Your task to perform on an android device: turn on data saver in the chrome app Image 0: 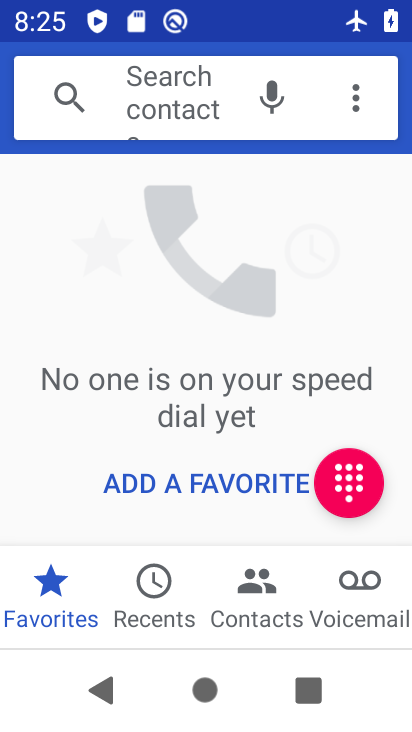
Step 0: press back button
Your task to perform on an android device: turn on data saver in the chrome app Image 1: 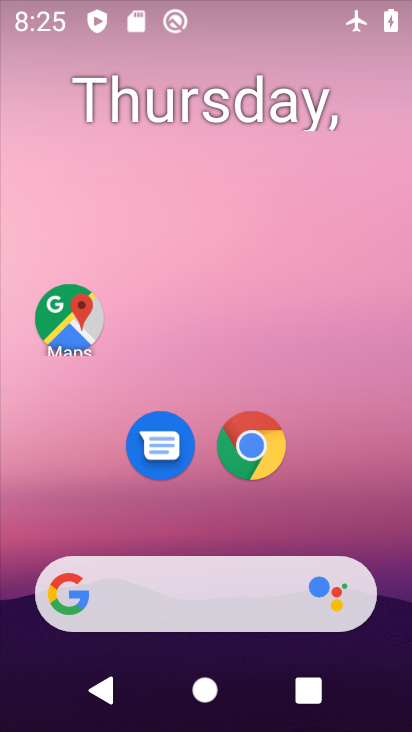
Step 1: drag from (276, 509) to (300, 70)
Your task to perform on an android device: turn on data saver in the chrome app Image 2: 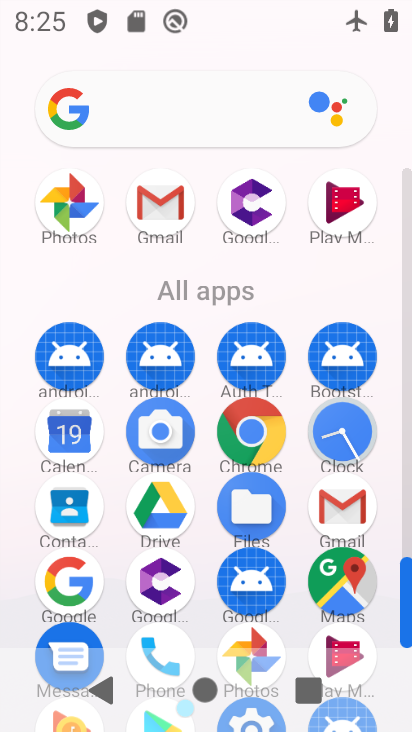
Step 2: click (268, 419)
Your task to perform on an android device: turn on data saver in the chrome app Image 3: 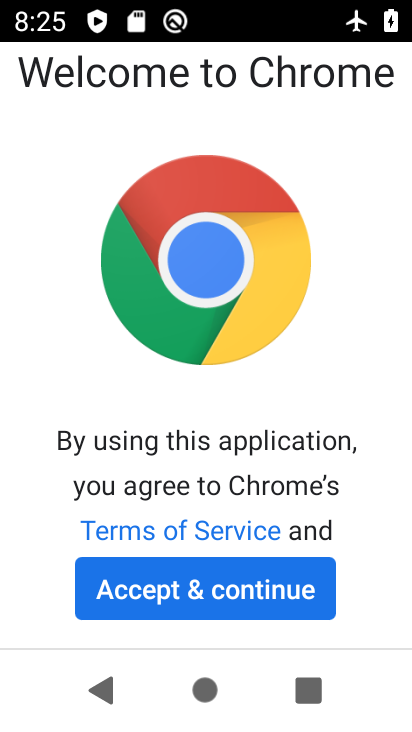
Step 3: click (263, 556)
Your task to perform on an android device: turn on data saver in the chrome app Image 4: 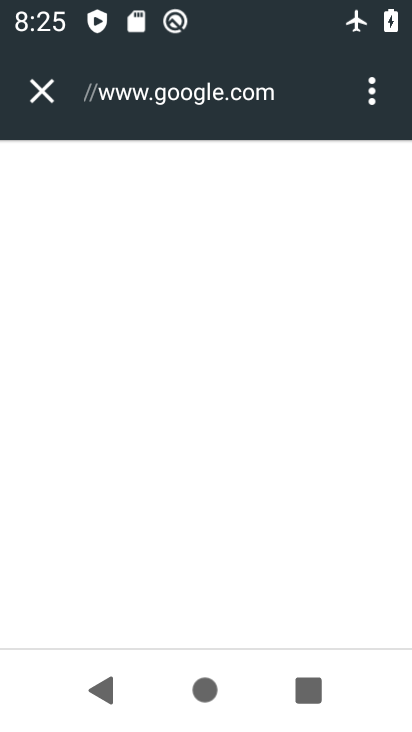
Step 4: click (43, 86)
Your task to perform on an android device: turn on data saver in the chrome app Image 5: 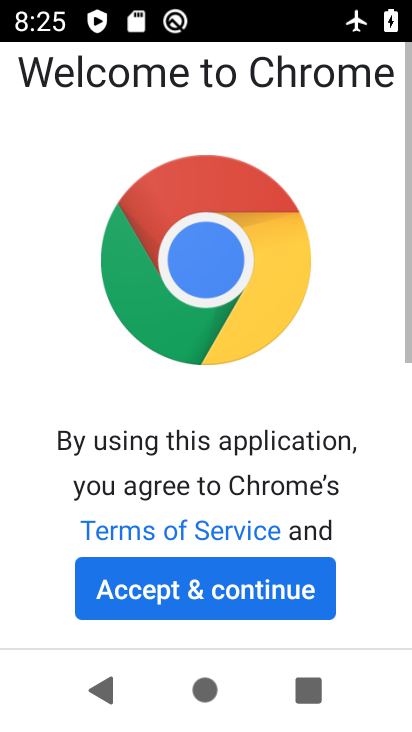
Step 5: click (234, 583)
Your task to perform on an android device: turn on data saver in the chrome app Image 6: 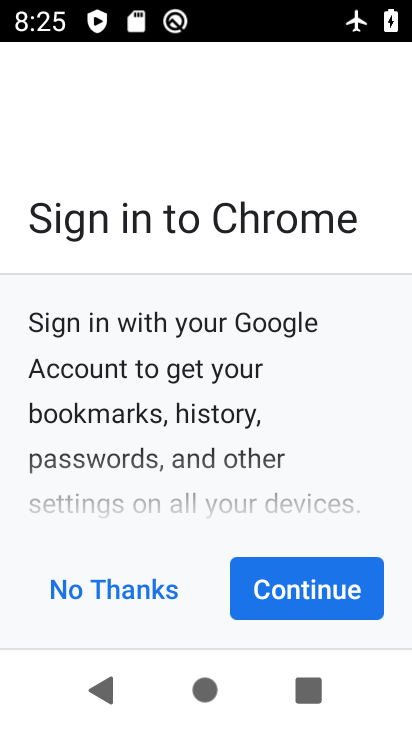
Step 6: click (302, 577)
Your task to perform on an android device: turn on data saver in the chrome app Image 7: 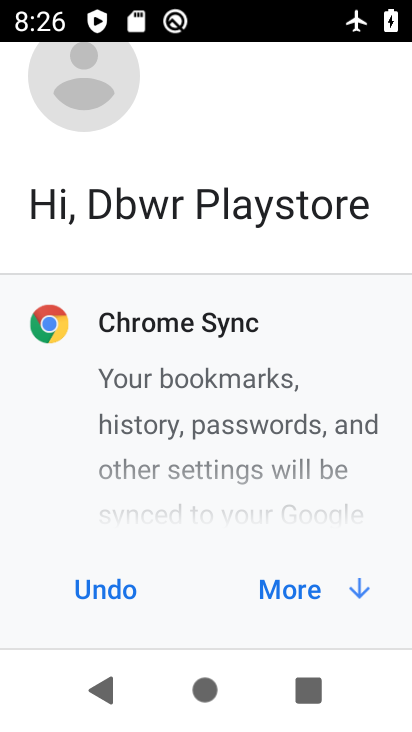
Step 7: click (278, 591)
Your task to perform on an android device: turn on data saver in the chrome app Image 8: 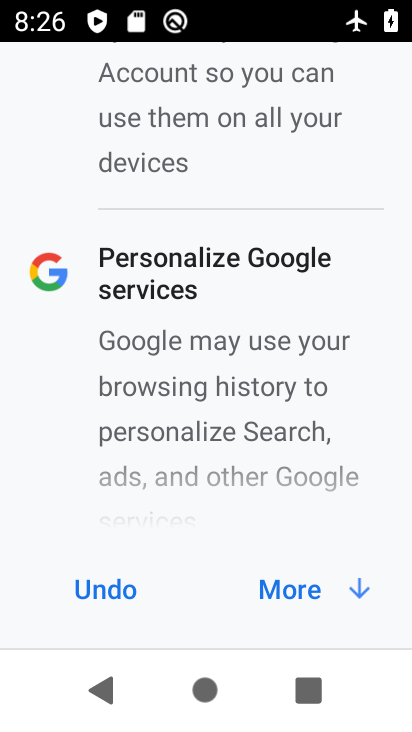
Step 8: click (278, 591)
Your task to perform on an android device: turn on data saver in the chrome app Image 9: 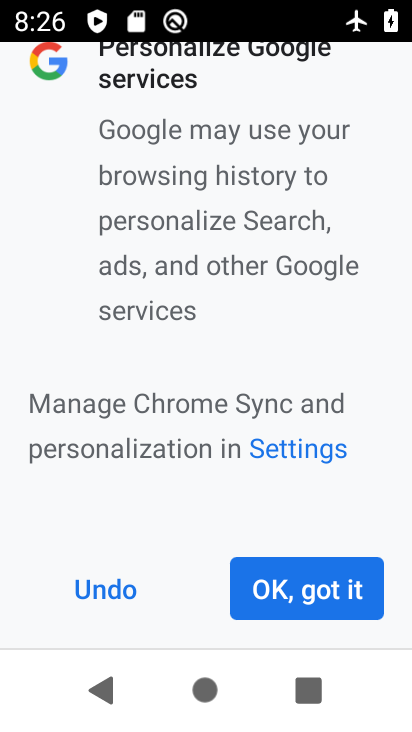
Step 9: click (278, 591)
Your task to perform on an android device: turn on data saver in the chrome app Image 10: 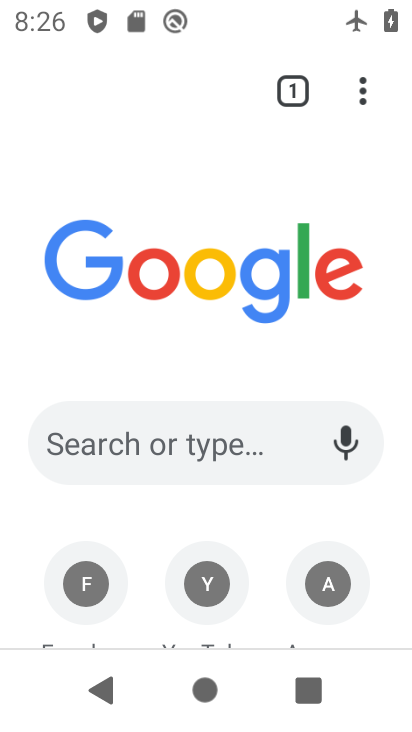
Step 10: drag from (366, 82) to (112, 477)
Your task to perform on an android device: turn on data saver in the chrome app Image 11: 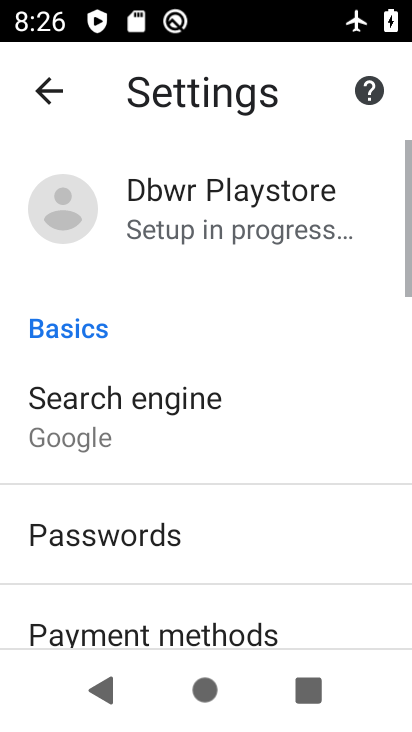
Step 11: drag from (142, 643) to (222, 90)
Your task to perform on an android device: turn on data saver in the chrome app Image 12: 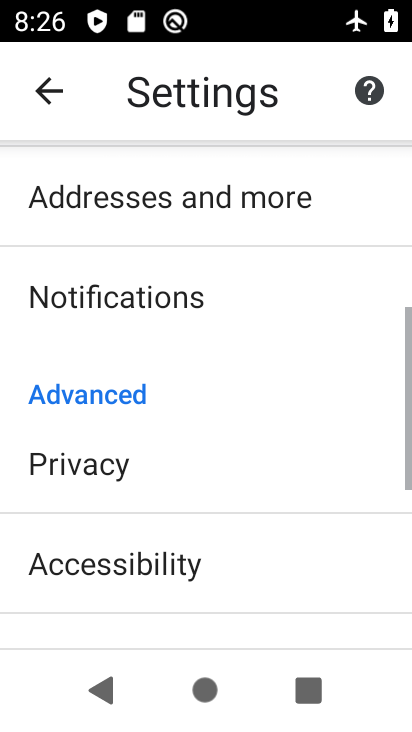
Step 12: drag from (185, 561) to (239, 157)
Your task to perform on an android device: turn on data saver in the chrome app Image 13: 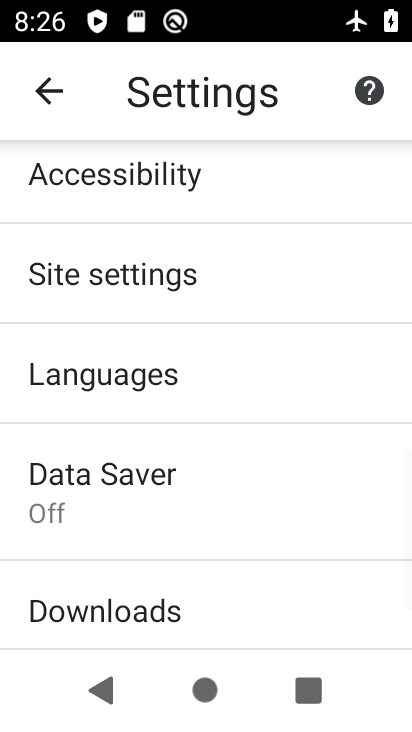
Step 13: click (165, 471)
Your task to perform on an android device: turn on data saver in the chrome app Image 14: 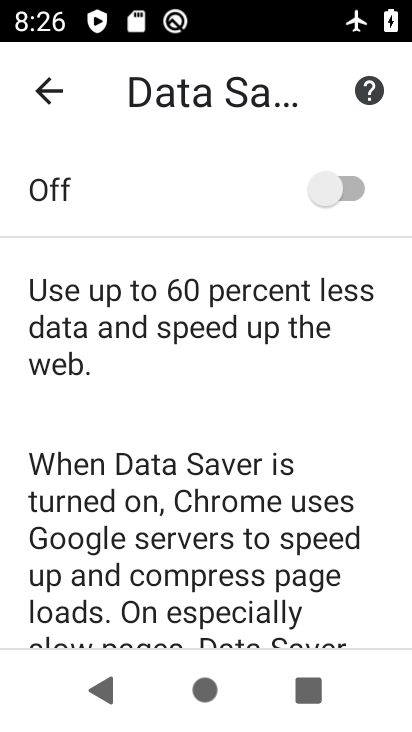
Step 14: click (342, 193)
Your task to perform on an android device: turn on data saver in the chrome app Image 15: 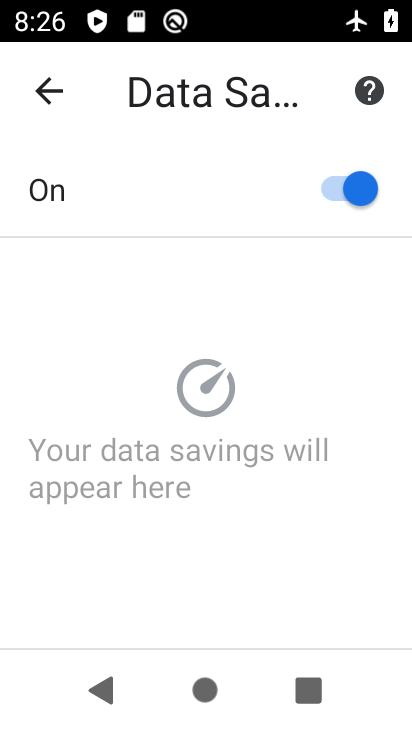
Step 15: task complete